Your task to perform on an android device: open a bookmark in the chrome app Image 0: 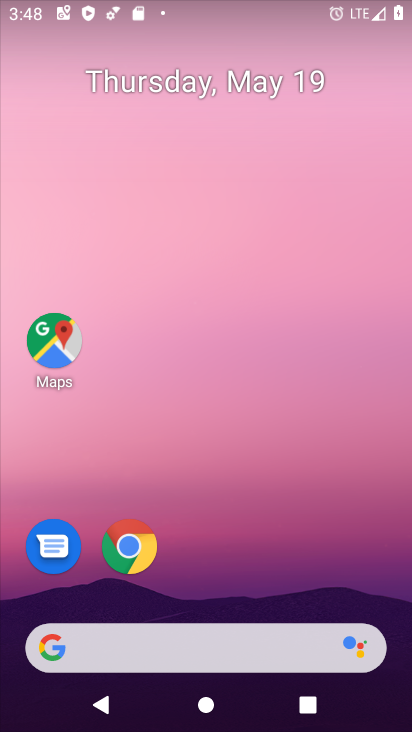
Step 0: click (149, 549)
Your task to perform on an android device: open a bookmark in the chrome app Image 1: 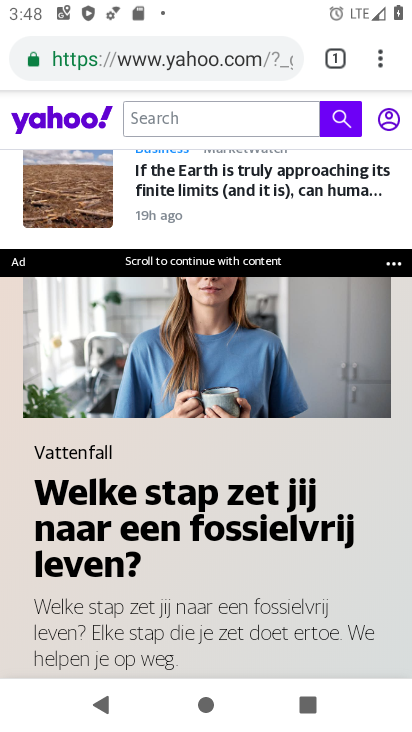
Step 1: click (378, 53)
Your task to perform on an android device: open a bookmark in the chrome app Image 2: 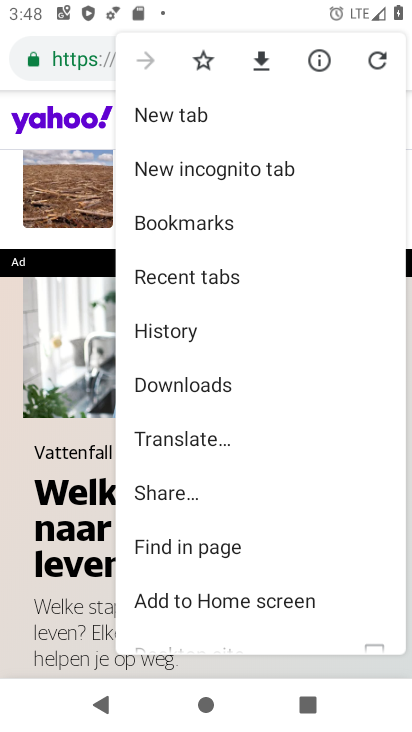
Step 2: click (243, 211)
Your task to perform on an android device: open a bookmark in the chrome app Image 3: 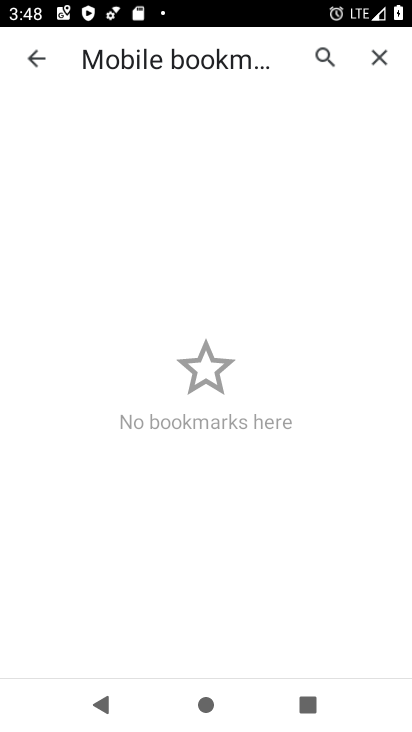
Step 3: task complete